Your task to perform on an android device: turn on improve location accuracy Image 0: 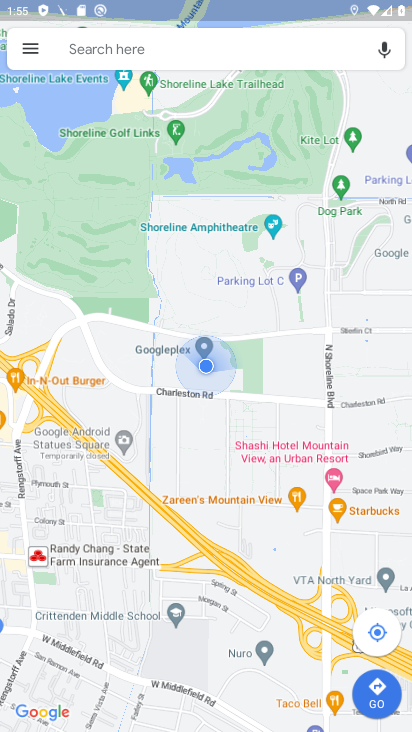
Step 0: press home button
Your task to perform on an android device: turn on improve location accuracy Image 1: 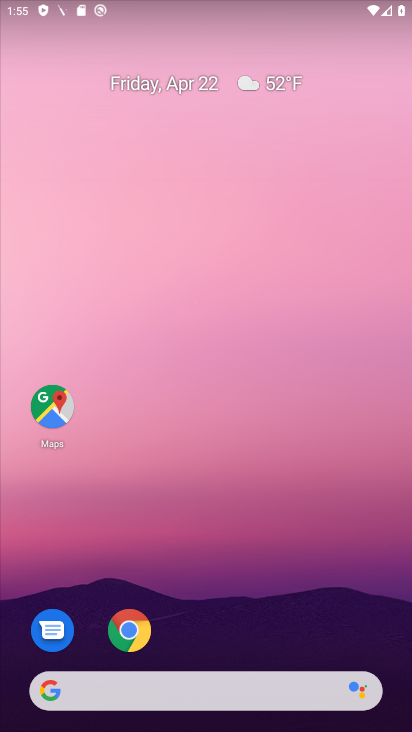
Step 1: drag from (246, 618) to (220, 49)
Your task to perform on an android device: turn on improve location accuracy Image 2: 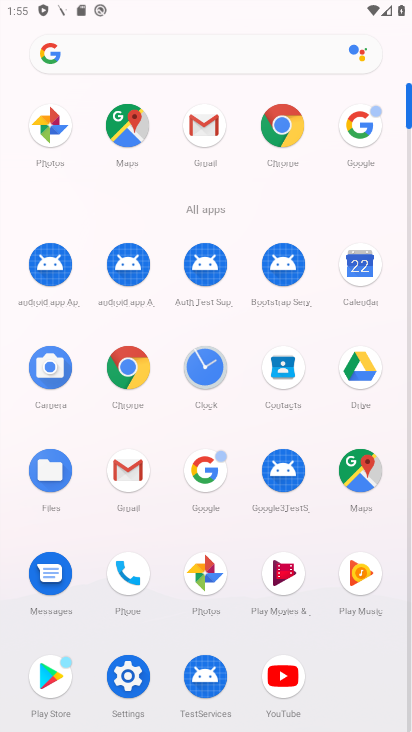
Step 2: click (111, 676)
Your task to perform on an android device: turn on improve location accuracy Image 3: 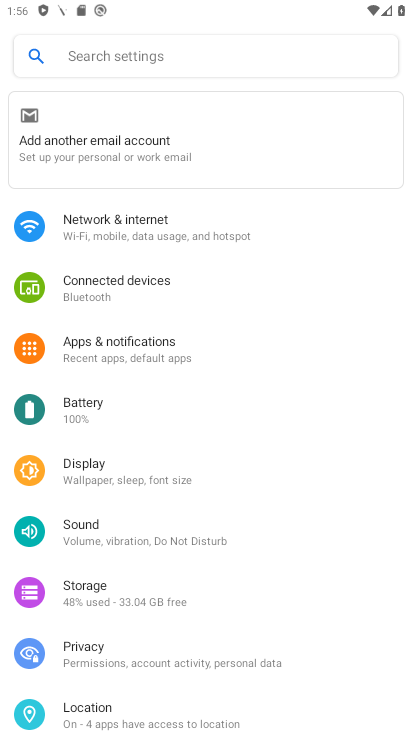
Step 3: click (116, 707)
Your task to perform on an android device: turn on improve location accuracy Image 4: 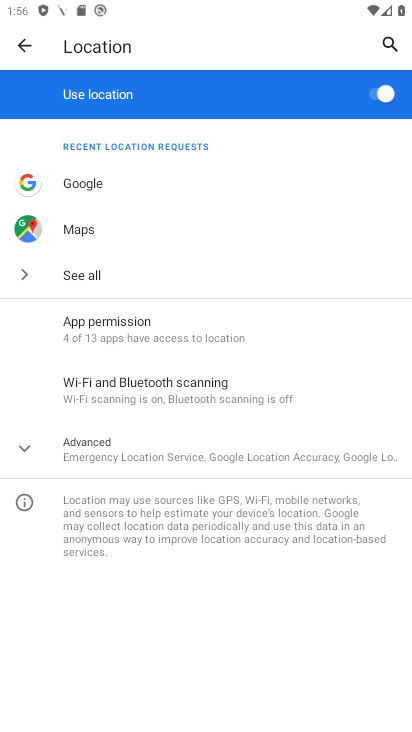
Step 4: click (134, 440)
Your task to perform on an android device: turn on improve location accuracy Image 5: 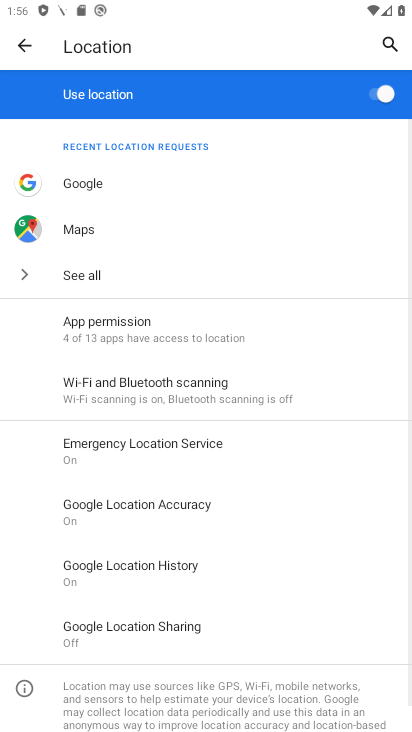
Step 5: click (141, 511)
Your task to perform on an android device: turn on improve location accuracy Image 6: 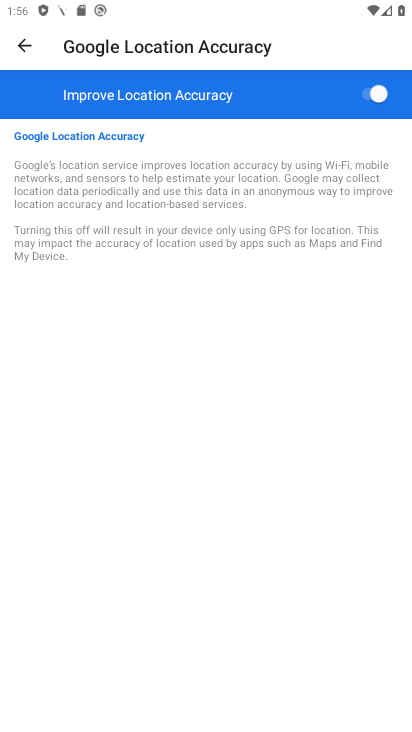
Step 6: task complete